Your task to perform on an android device: Open ESPN.com Image 0: 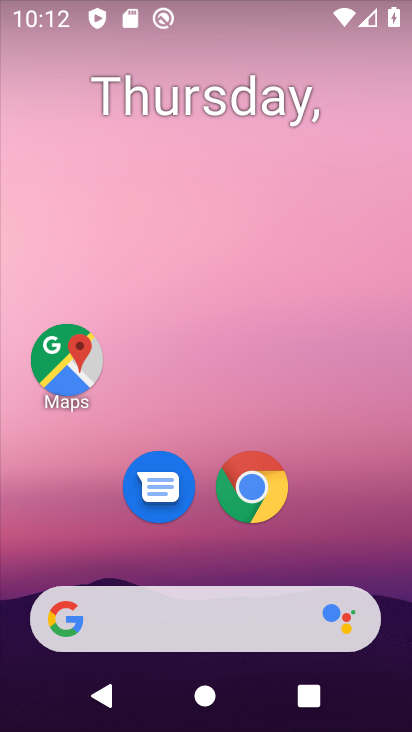
Step 0: click (267, 493)
Your task to perform on an android device: Open ESPN.com Image 1: 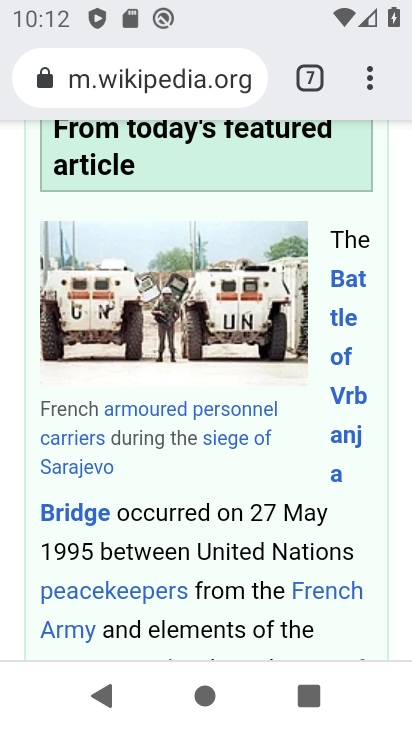
Step 1: click (310, 85)
Your task to perform on an android device: Open ESPN.com Image 2: 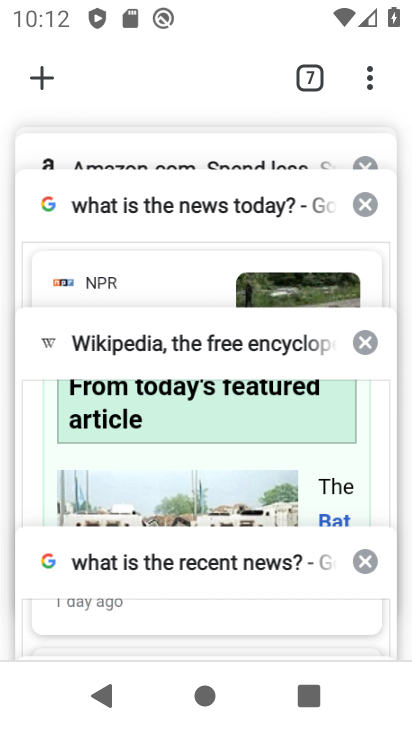
Step 2: click (43, 82)
Your task to perform on an android device: Open ESPN.com Image 3: 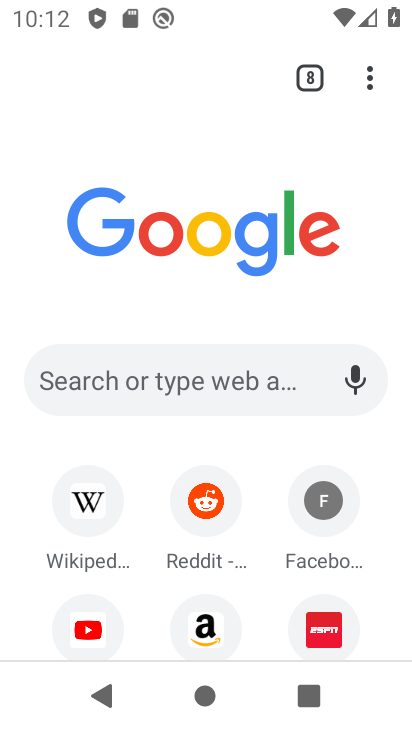
Step 3: click (331, 643)
Your task to perform on an android device: Open ESPN.com Image 4: 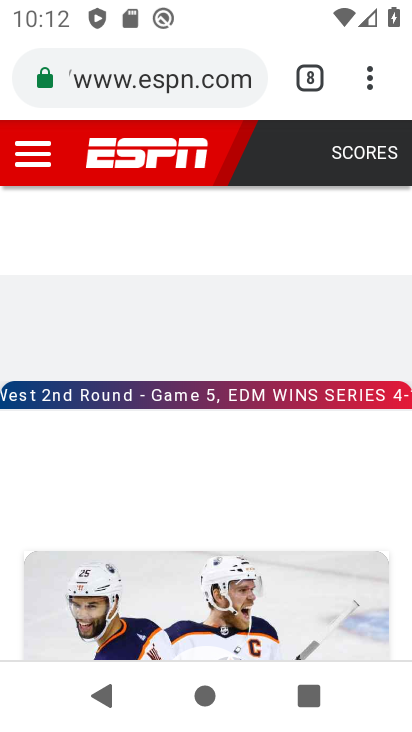
Step 4: task complete